Your task to perform on an android device: remove spam from my inbox in the gmail app Image 0: 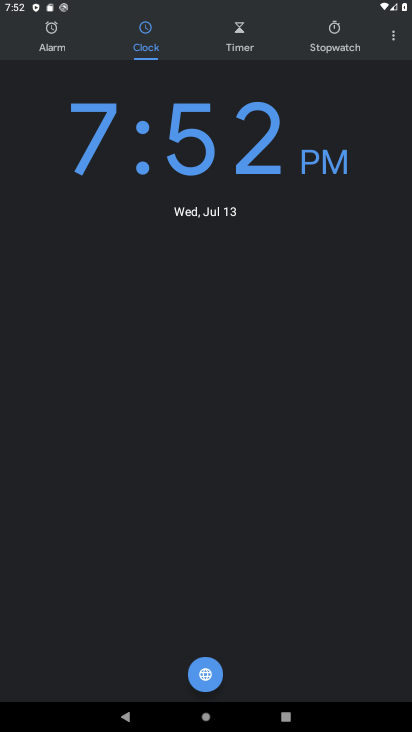
Step 0: press home button
Your task to perform on an android device: remove spam from my inbox in the gmail app Image 1: 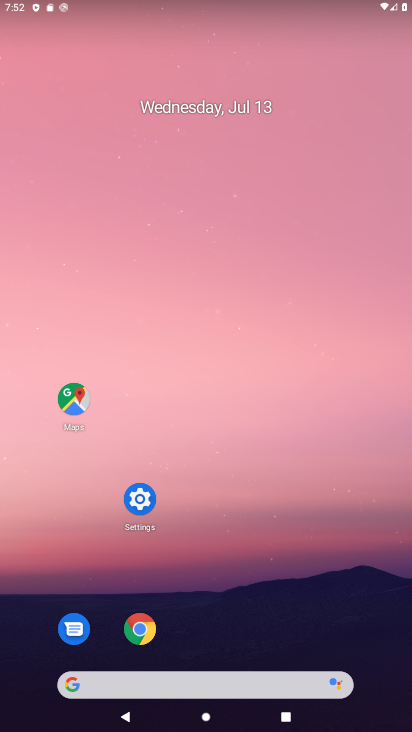
Step 1: drag from (392, 727) to (369, 173)
Your task to perform on an android device: remove spam from my inbox in the gmail app Image 2: 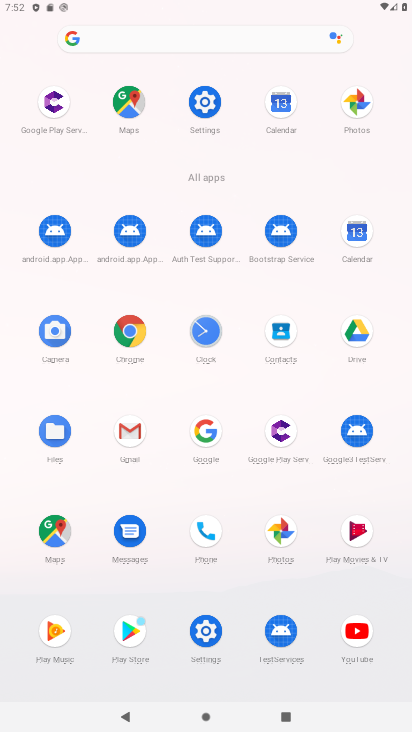
Step 2: click (124, 429)
Your task to perform on an android device: remove spam from my inbox in the gmail app Image 3: 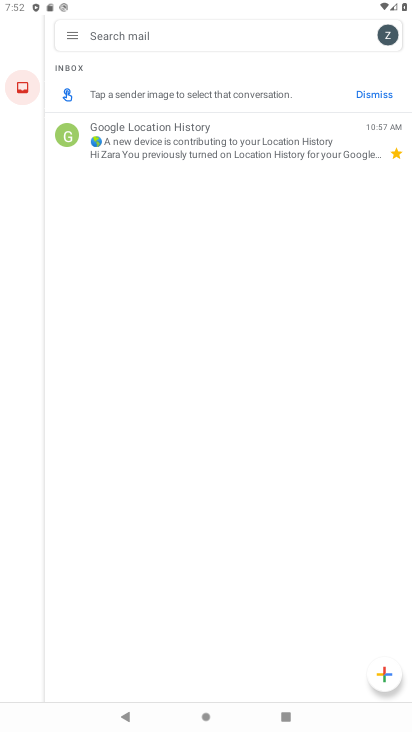
Step 3: click (67, 35)
Your task to perform on an android device: remove spam from my inbox in the gmail app Image 4: 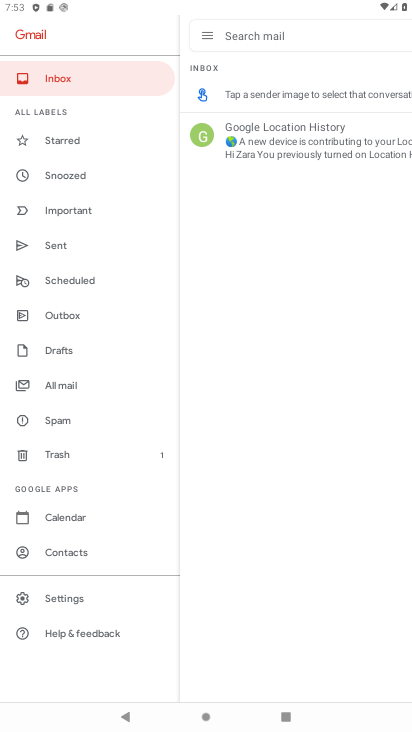
Step 4: click (49, 417)
Your task to perform on an android device: remove spam from my inbox in the gmail app Image 5: 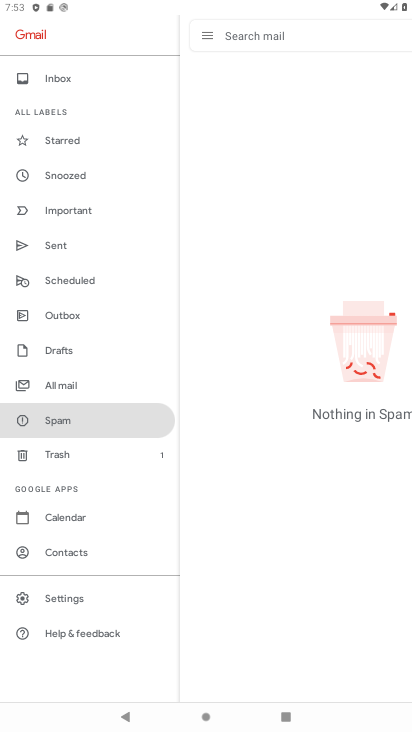
Step 5: task complete